Your task to perform on an android device: What is the recent news? Image 0: 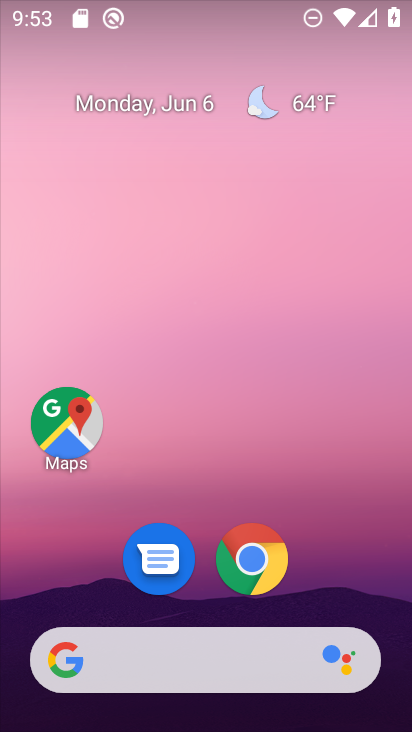
Step 0: drag from (3, 240) to (410, 270)
Your task to perform on an android device: What is the recent news? Image 1: 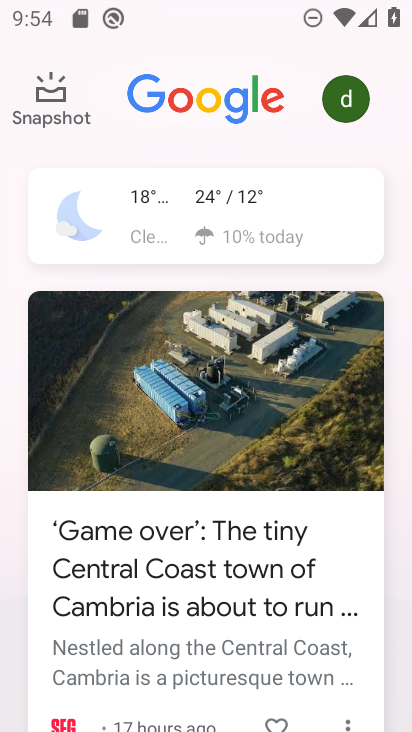
Step 1: task complete